Your task to perform on an android device: Go to eBay Image 0: 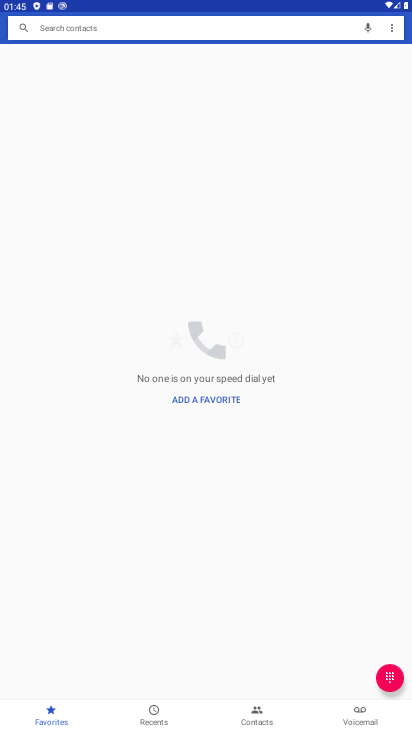
Step 0: press home button
Your task to perform on an android device: Go to eBay Image 1: 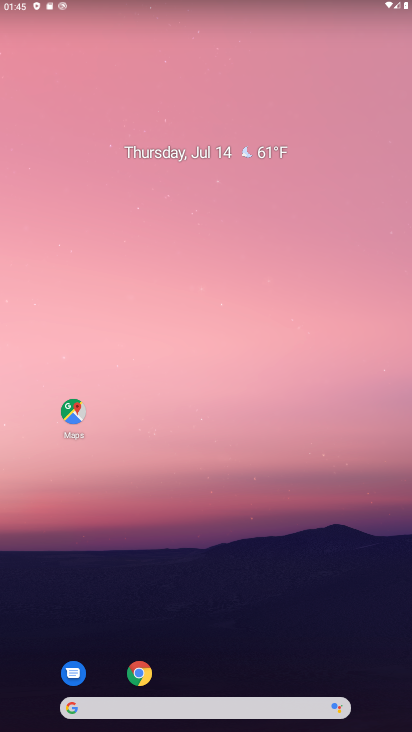
Step 1: drag from (235, 663) to (250, 185)
Your task to perform on an android device: Go to eBay Image 2: 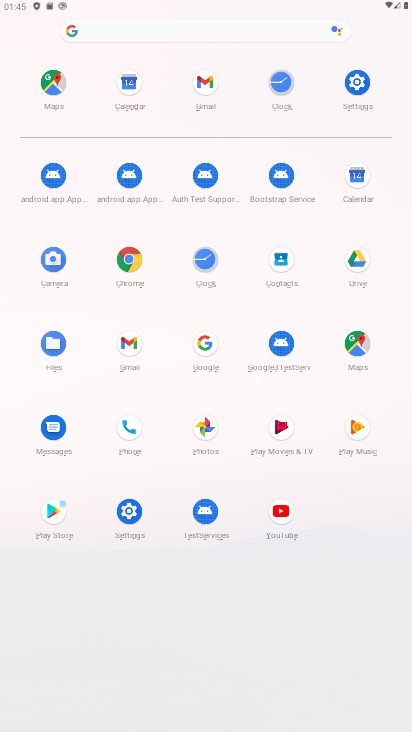
Step 2: click (217, 94)
Your task to perform on an android device: Go to eBay Image 3: 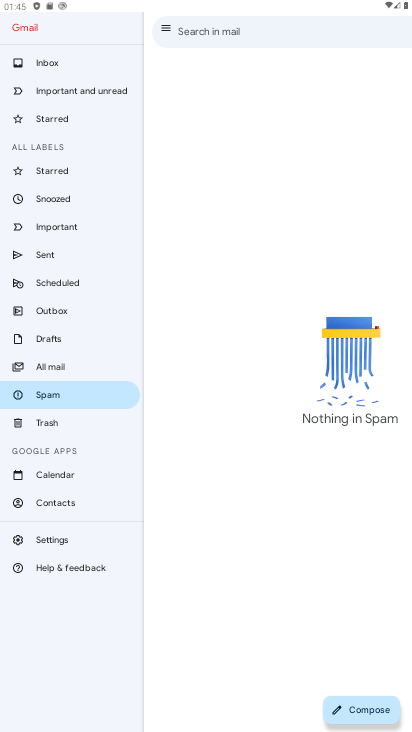
Step 3: task complete